Your task to perform on an android device: add a contact Image 0: 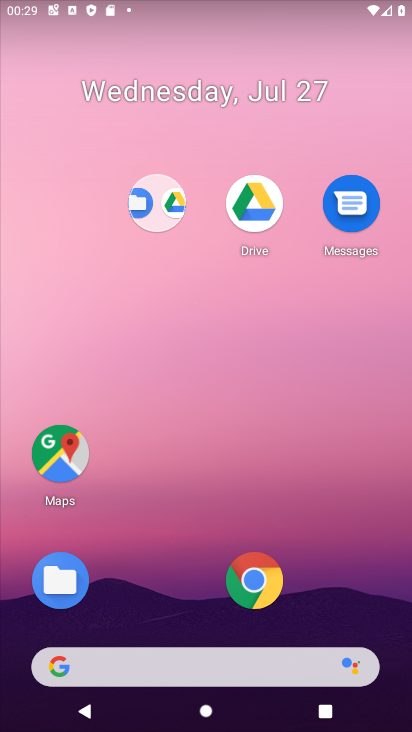
Step 0: drag from (132, 596) to (120, 100)
Your task to perform on an android device: add a contact Image 1: 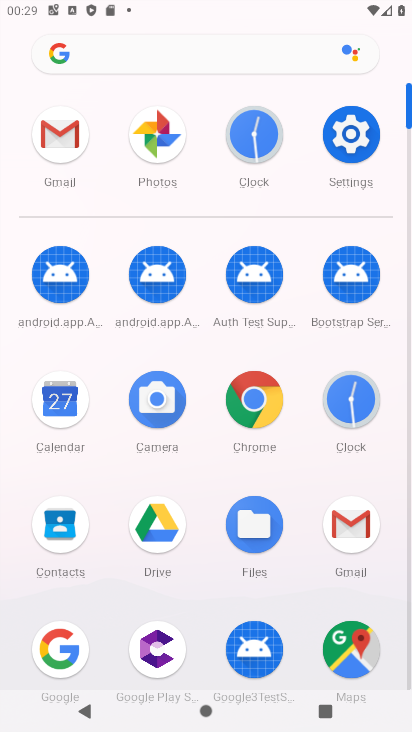
Step 1: click (68, 532)
Your task to perform on an android device: add a contact Image 2: 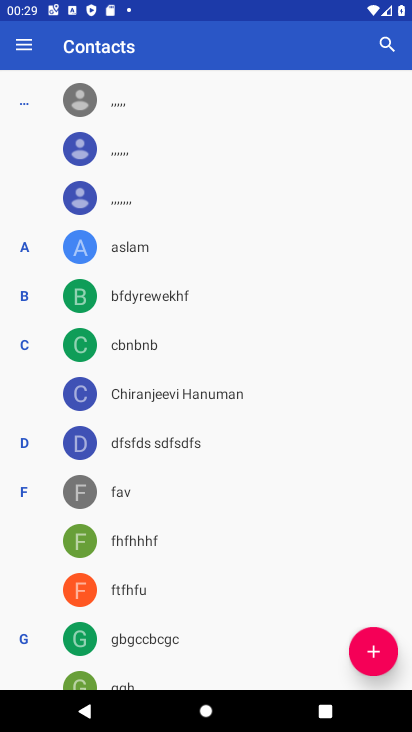
Step 2: click (380, 662)
Your task to perform on an android device: add a contact Image 3: 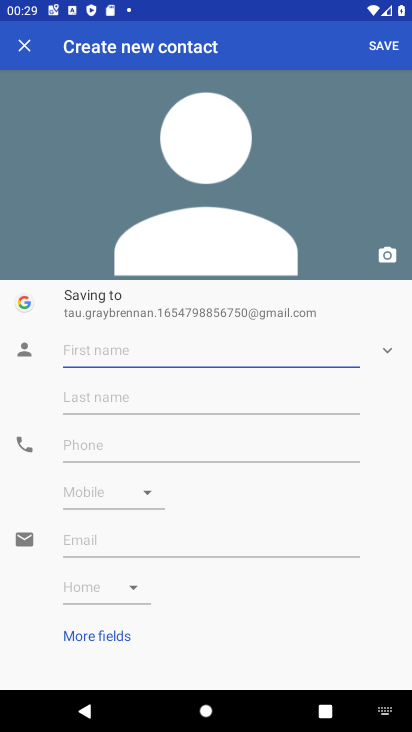
Step 3: click (380, 662)
Your task to perform on an android device: add a contact Image 4: 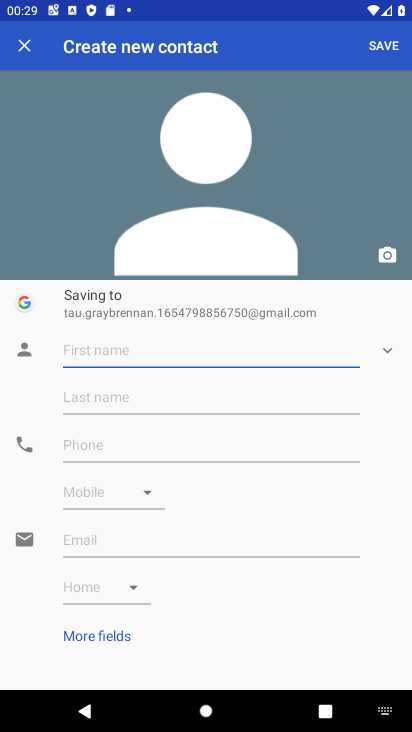
Step 4: type "oikjhbv"
Your task to perform on an android device: add a contact Image 5: 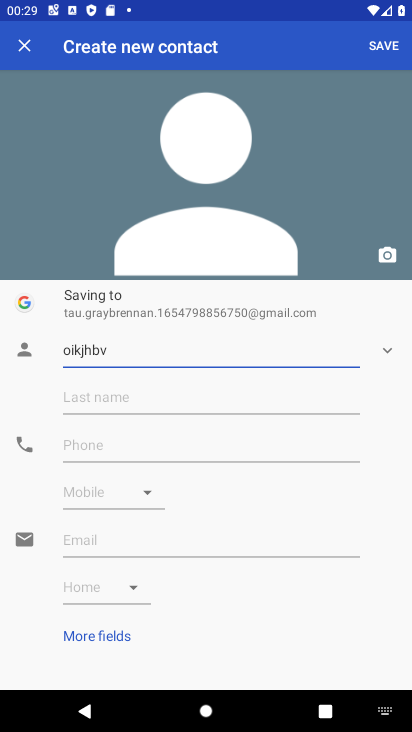
Step 5: click (256, 435)
Your task to perform on an android device: add a contact Image 6: 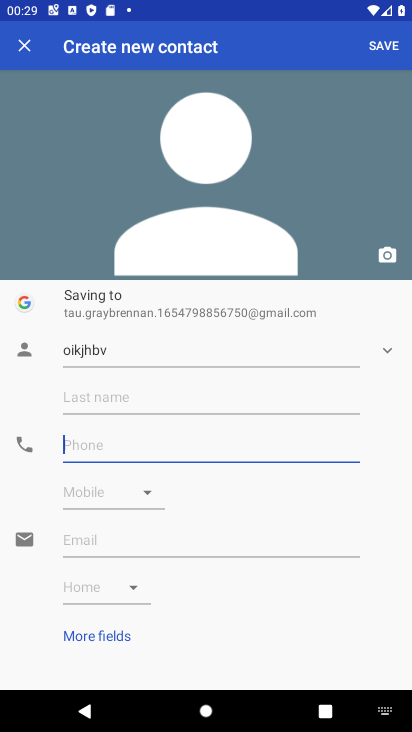
Step 6: type "987656789"
Your task to perform on an android device: add a contact Image 7: 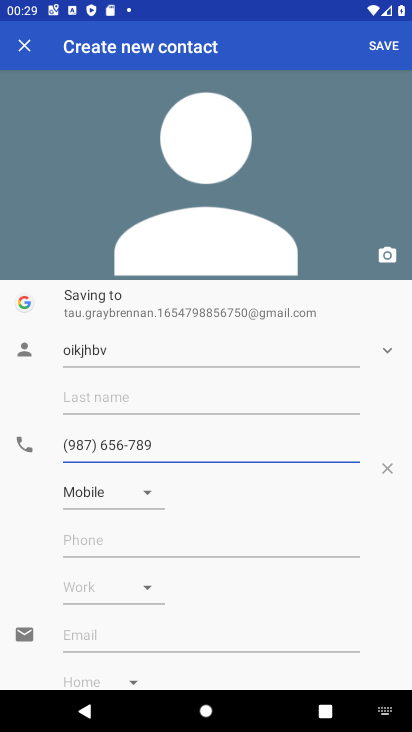
Step 7: click (388, 51)
Your task to perform on an android device: add a contact Image 8: 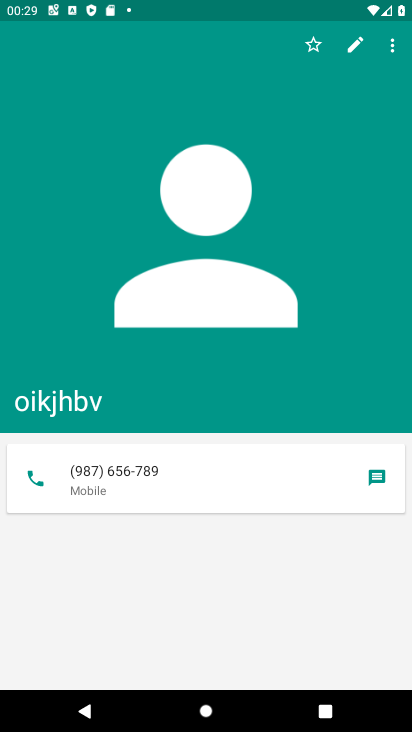
Step 8: task complete